Your task to perform on an android device: change your default location settings in chrome Image 0: 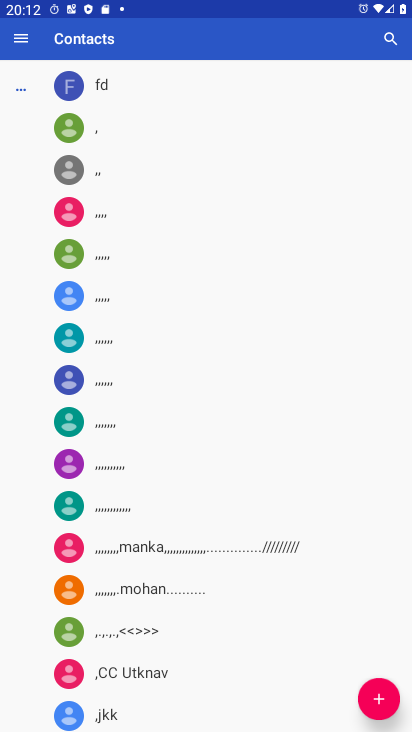
Step 0: press home button
Your task to perform on an android device: change your default location settings in chrome Image 1: 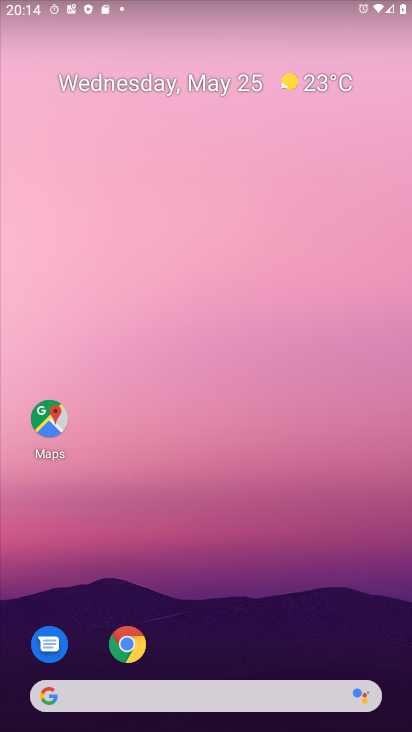
Step 1: drag from (281, 706) to (210, 135)
Your task to perform on an android device: change your default location settings in chrome Image 2: 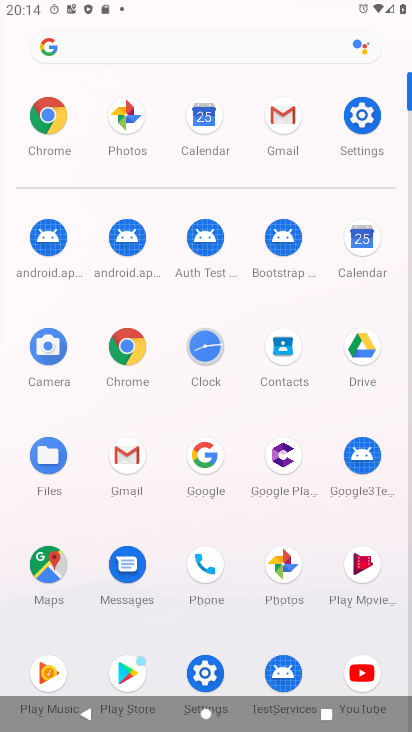
Step 2: click (48, 135)
Your task to perform on an android device: change your default location settings in chrome Image 3: 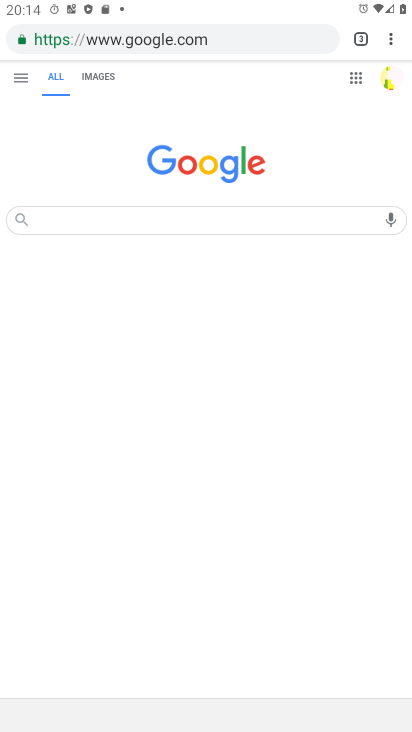
Step 3: click (390, 49)
Your task to perform on an android device: change your default location settings in chrome Image 4: 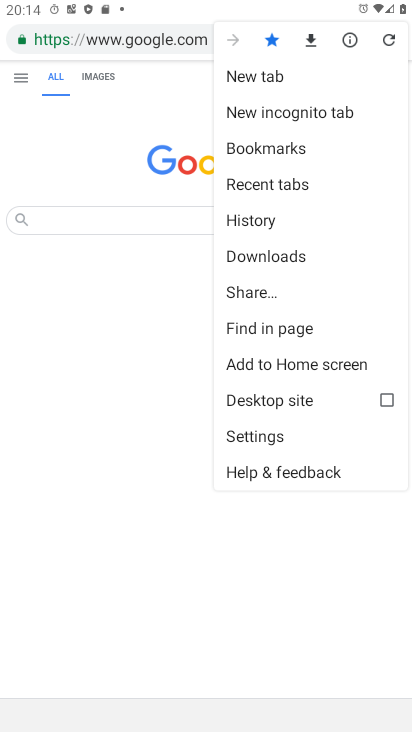
Step 4: click (254, 443)
Your task to perform on an android device: change your default location settings in chrome Image 5: 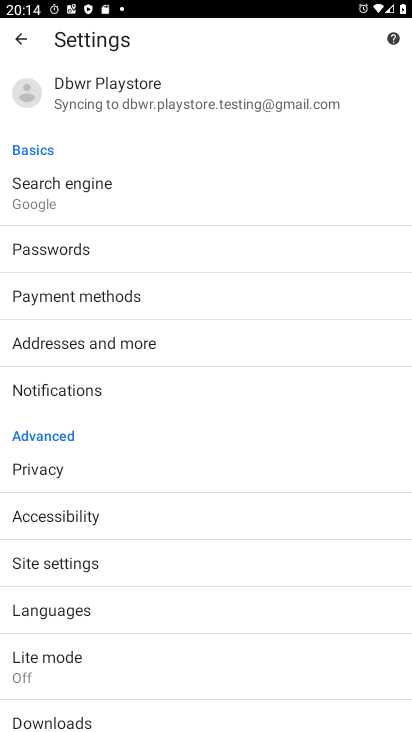
Step 5: click (87, 570)
Your task to perform on an android device: change your default location settings in chrome Image 6: 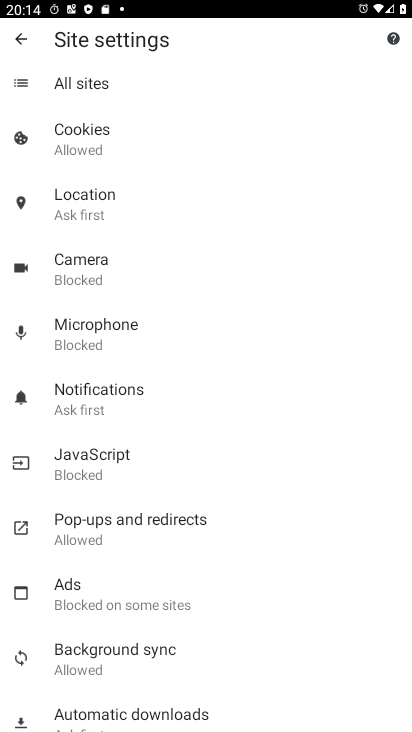
Step 6: click (112, 219)
Your task to perform on an android device: change your default location settings in chrome Image 7: 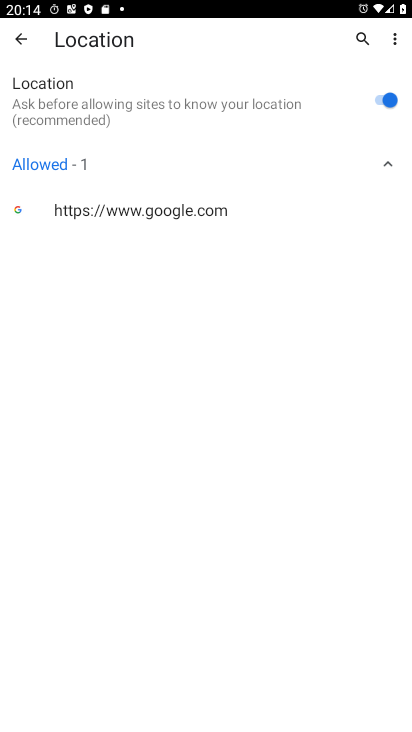
Step 7: task complete